Your task to perform on an android device: Open calendar and show me the first week of next month Image 0: 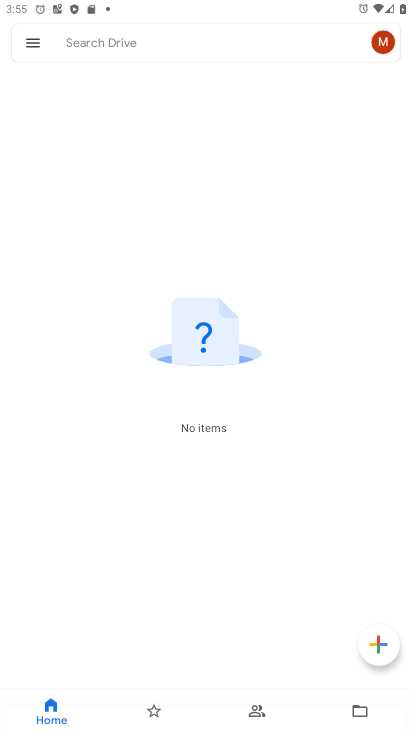
Step 0: press home button
Your task to perform on an android device: Open calendar and show me the first week of next month Image 1: 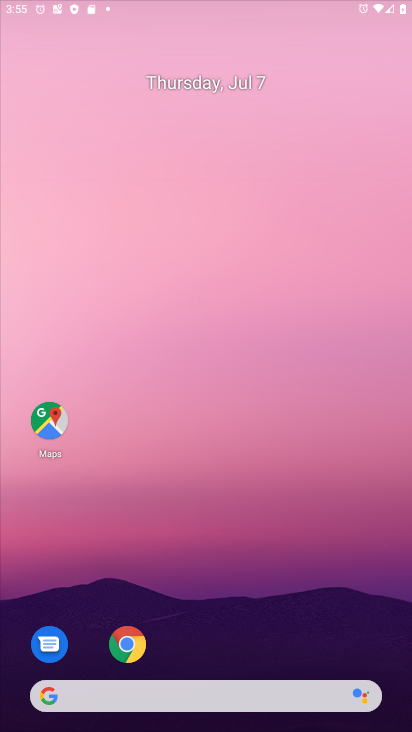
Step 1: drag from (198, 570) to (261, 187)
Your task to perform on an android device: Open calendar and show me the first week of next month Image 2: 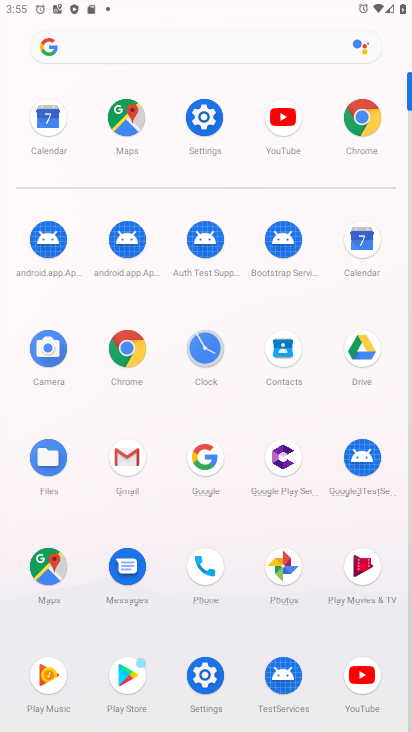
Step 2: click (353, 250)
Your task to perform on an android device: Open calendar and show me the first week of next month Image 3: 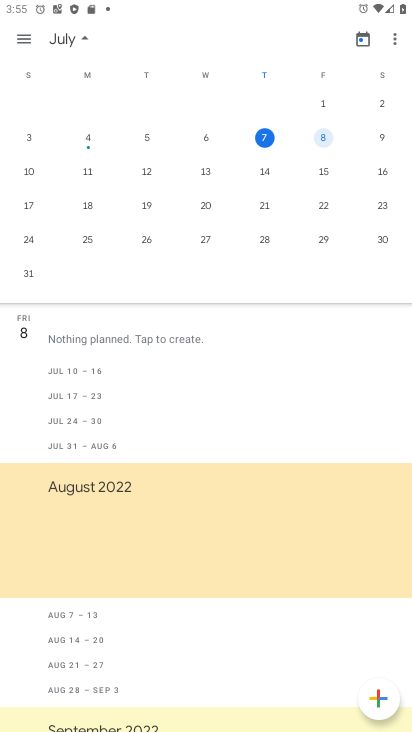
Step 3: task complete